Your task to perform on an android device: Open the calendar and show me this week's events? Image 0: 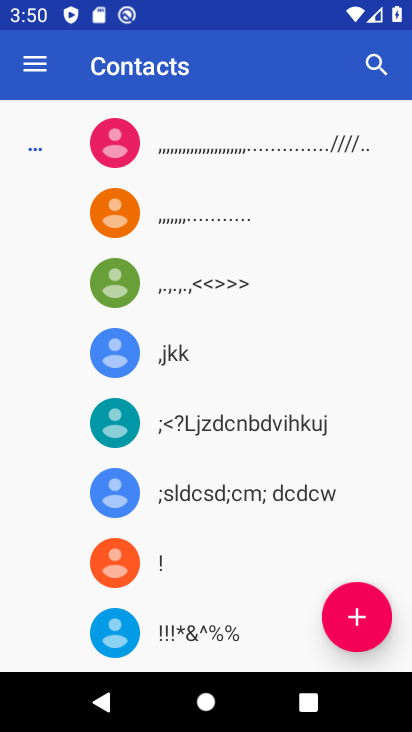
Step 0: press home button
Your task to perform on an android device: Open the calendar and show me this week's events? Image 1: 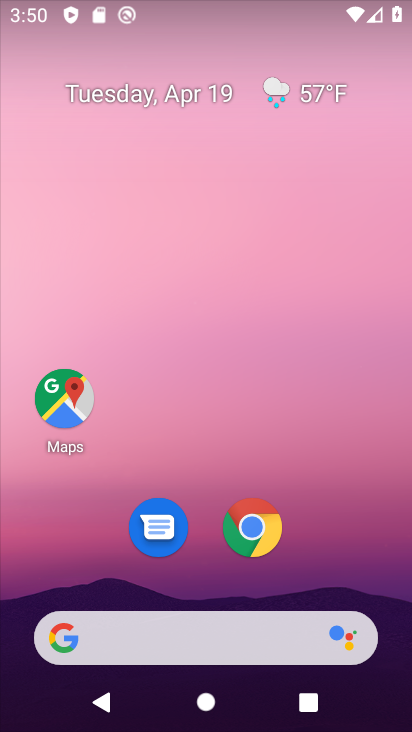
Step 1: drag from (341, 572) to (220, 78)
Your task to perform on an android device: Open the calendar and show me this week's events? Image 2: 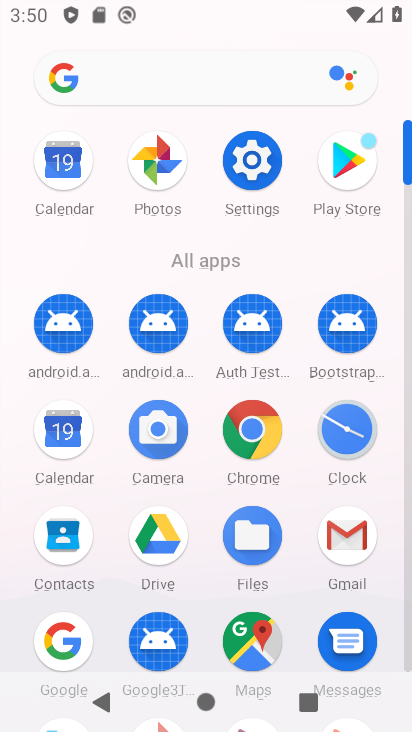
Step 2: click (405, 659)
Your task to perform on an android device: Open the calendar and show me this week's events? Image 3: 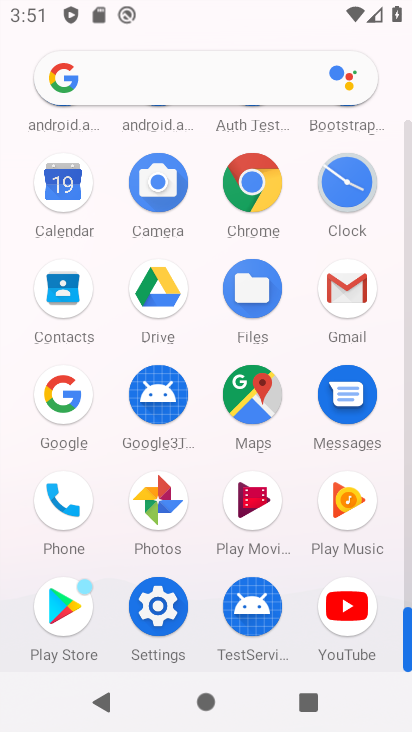
Step 3: click (58, 180)
Your task to perform on an android device: Open the calendar and show me this week's events? Image 4: 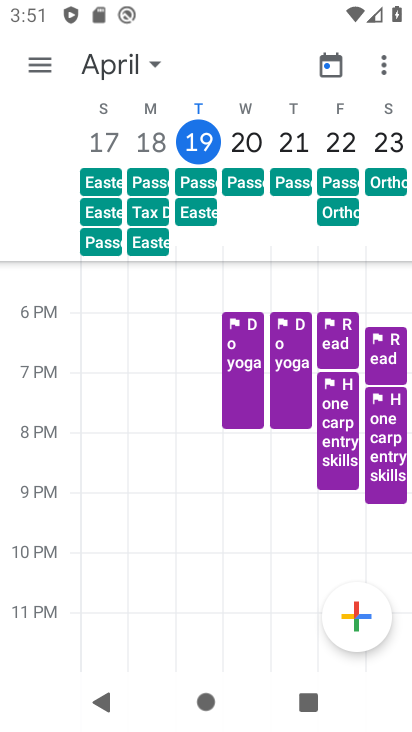
Step 4: task complete